Your task to perform on an android device: find snoozed emails in the gmail app Image 0: 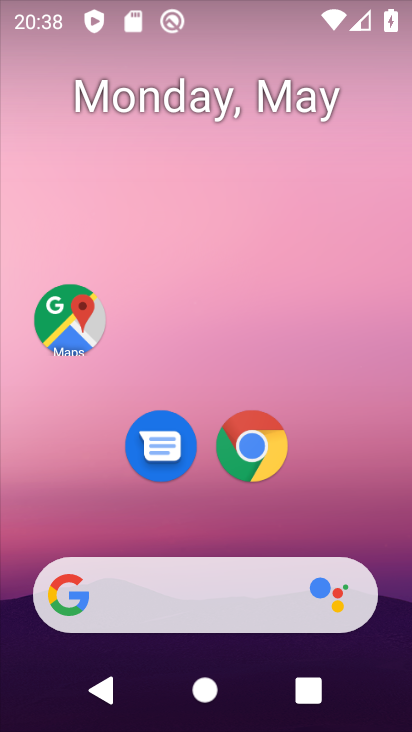
Step 0: drag from (335, 491) to (347, 0)
Your task to perform on an android device: find snoozed emails in the gmail app Image 1: 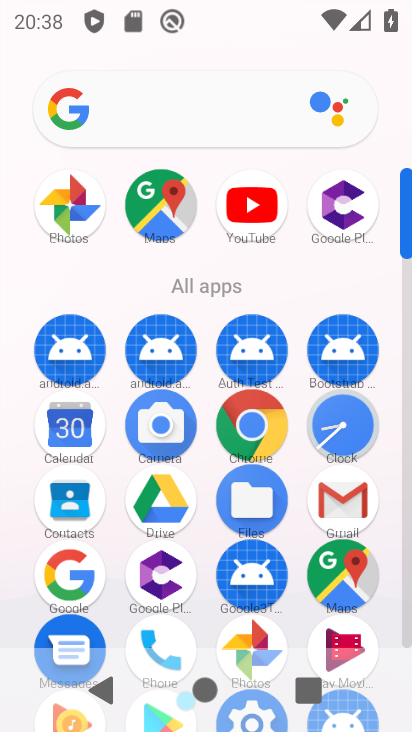
Step 1: click (323, 513)
Your task to perform on an android device: find snoozed emails in the gmail app Image 2: 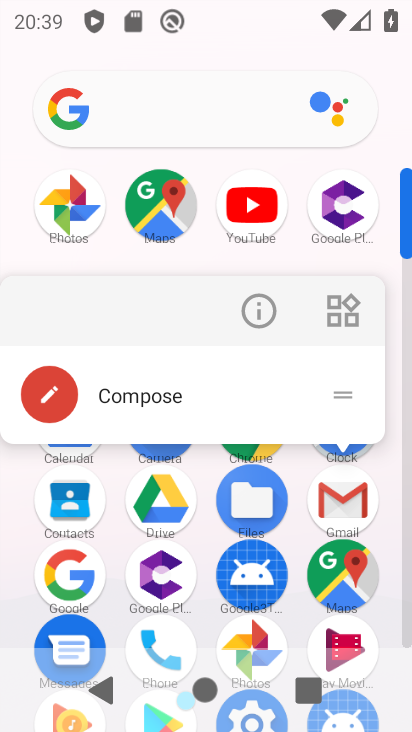
Step 2: click (364, 514)
Your task to perform on an android device: find snoozed emails in the gmail app Image 3: 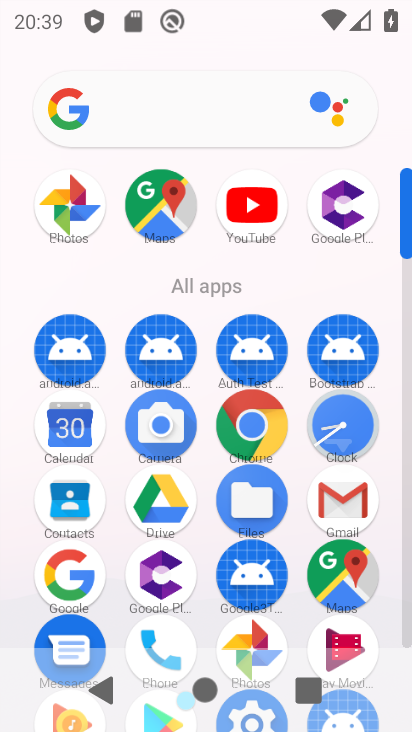
Step 3: click (338, 512)
Your task to perform on an android device: find snoozed emails in the gmail app Image 4: 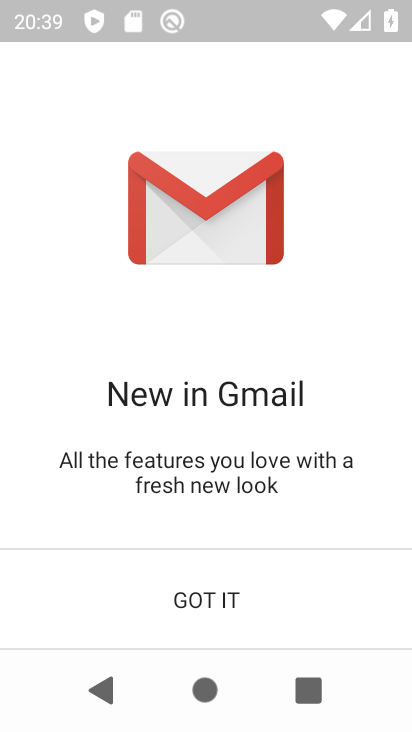
Step 4: click (202, 594)
Your task to perform on an android device: find snoozed emails in the gmail app Image 5: 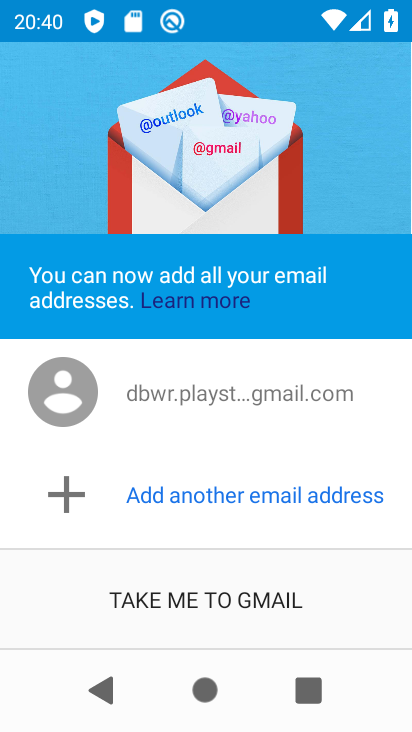
Step 5: click (154, 612)
Your task to perform on an android device: find snoozed emails in the gmail app Image 6: 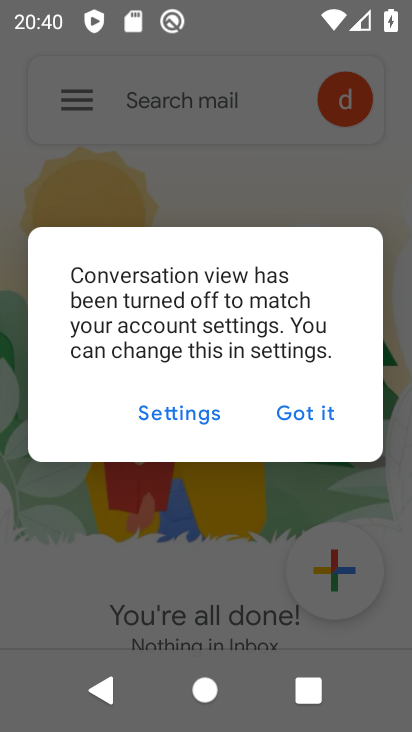
Step 6: click (304, 423)
Your task to perform on an android device: find snoozed emails in the gmail app Image 7: 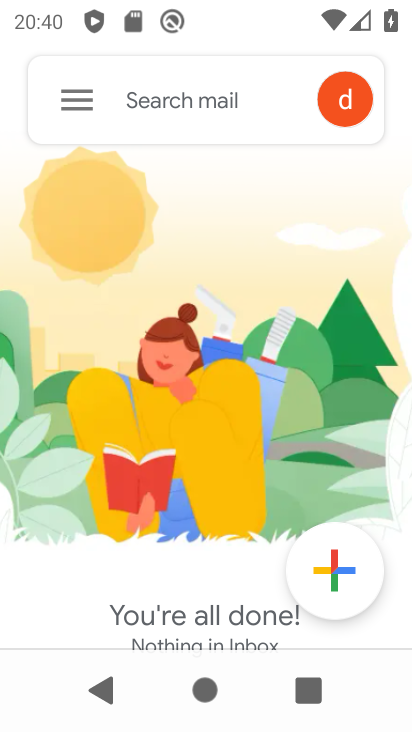
Step 7: click (72, 102)
Your task to perform on an android device: find snoozed emails in the gmail app Image 8: 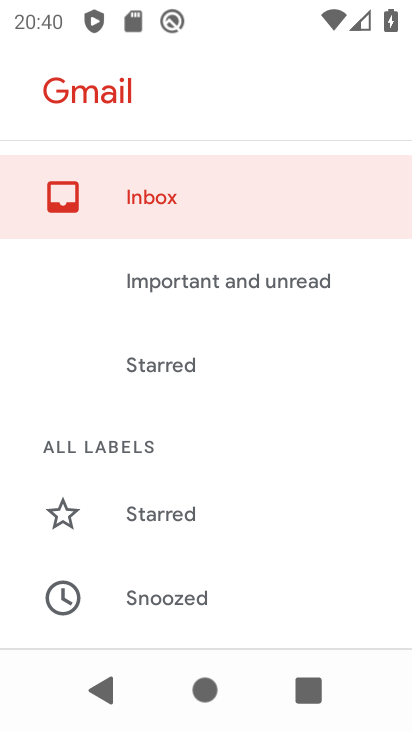
Step 8: drag from (164, 524) to (343, 80)
Your task to perform on an android device: find snoozed emails in the gmail app Image 9: 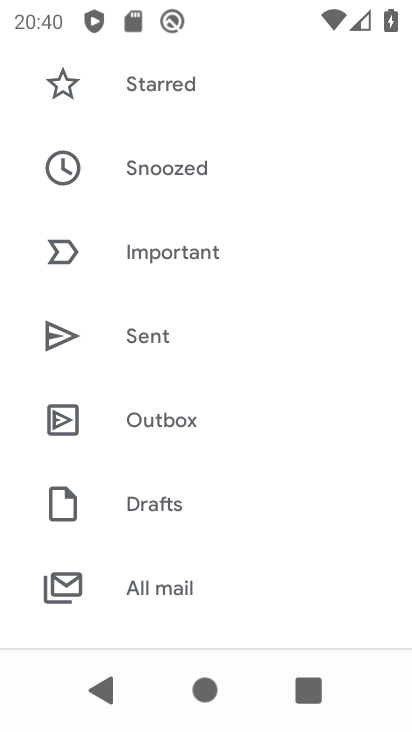
Step 9: click (159, 170)
Your task to perform on an android device: find snoozed emails in the gmail app Image 10: 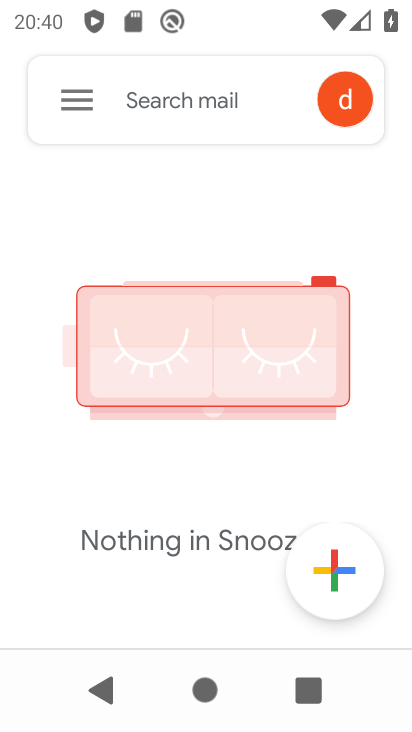
Step 10: task complete